Your task to perform on an android device: Do I have any events today? Image 0: 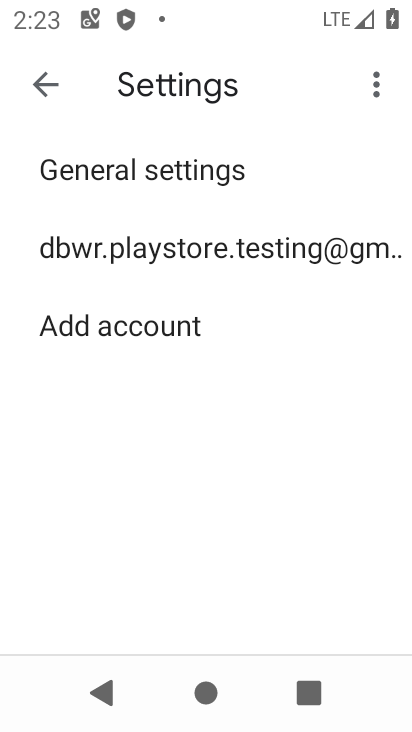
Step 0: press home button
Your task to perform on an android device: Do I have any events today? Image 1: 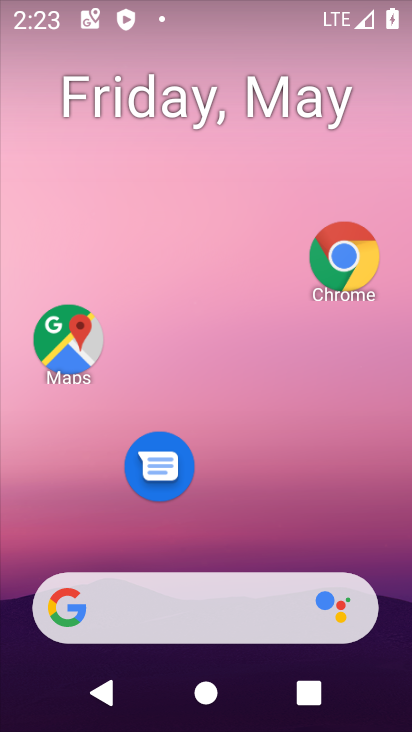
Step 1: drag from (278, 250) to (302, 101)
Your task to perform on an android device: Do I have any events today? Image 2: 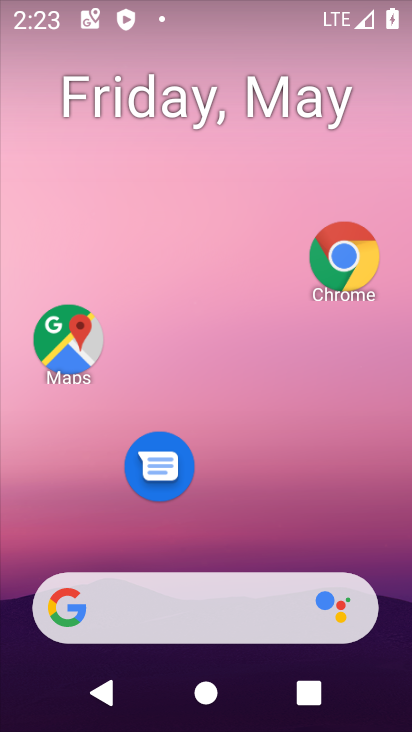
Step 2: click (332, 251)
Your task to perform on an android device: Do I have any events today? Image 3: 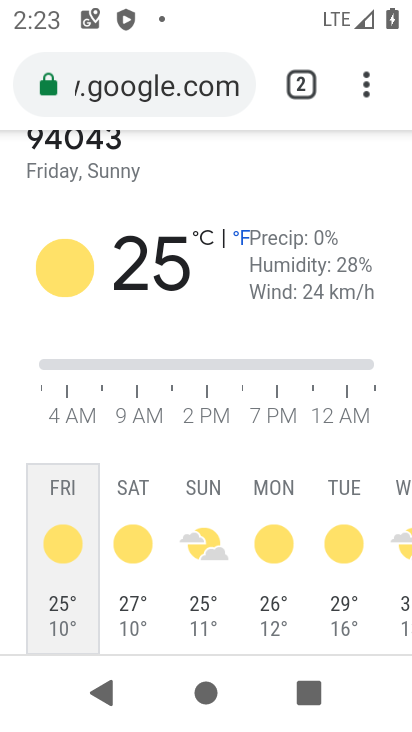
Step 3: click (148, 82)
Your task to perform on an android device: Do I have any events today? Image 4: 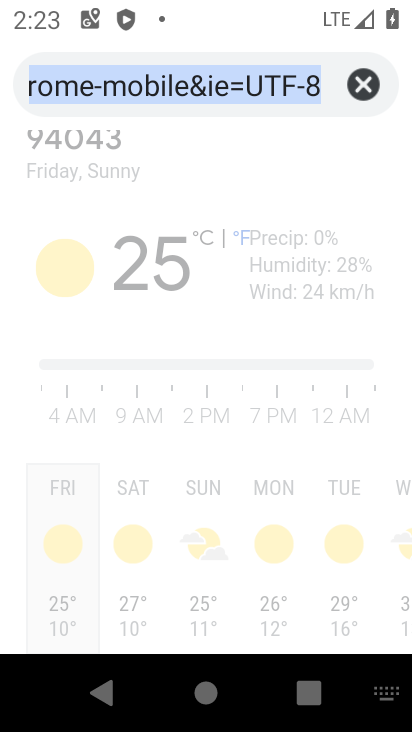
Step 4: click (350, 73)
Your task to perform on an android device: Do I have any events today? Image 5: 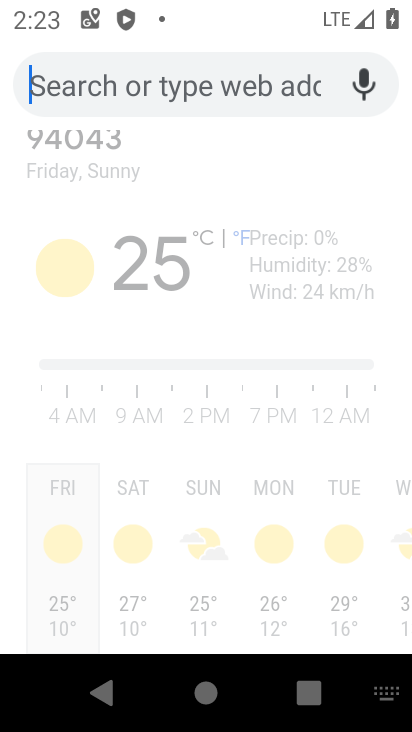
Step 5: type "Do I have any events today?"
Your task to perform on an android device: Do I have any events today? Image 6: 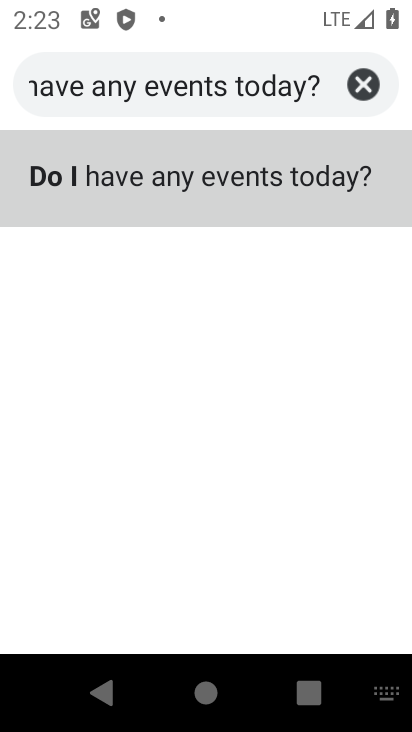
Step 6: click (107, 184)
Your task to perform on an android device: Do I have any events today? Image 7: 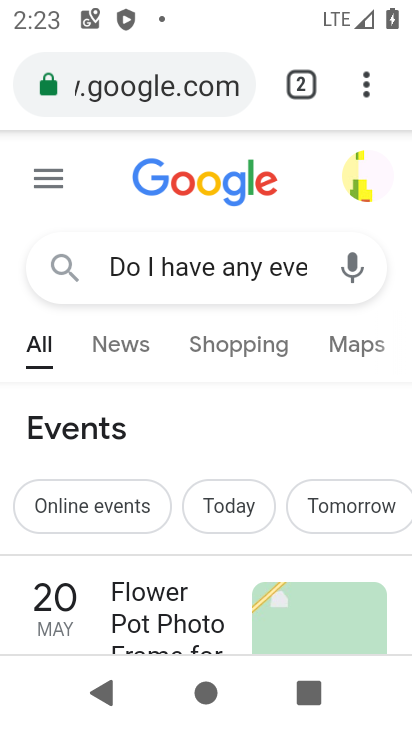
Step 7: task complete